Your task to perform on an android device: Open Google Chrome and click the shortcut for Amazon.com Image 0: 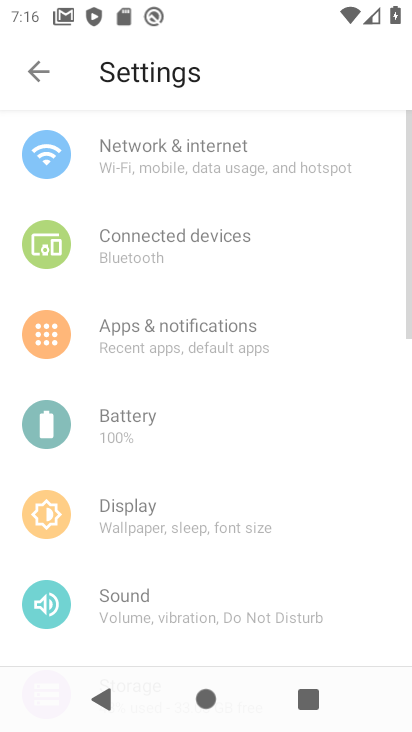
Step 0: press home button
Your task to perform on an android device: Open Google Chrome and click the shortcut for Amazon.com Image 1: 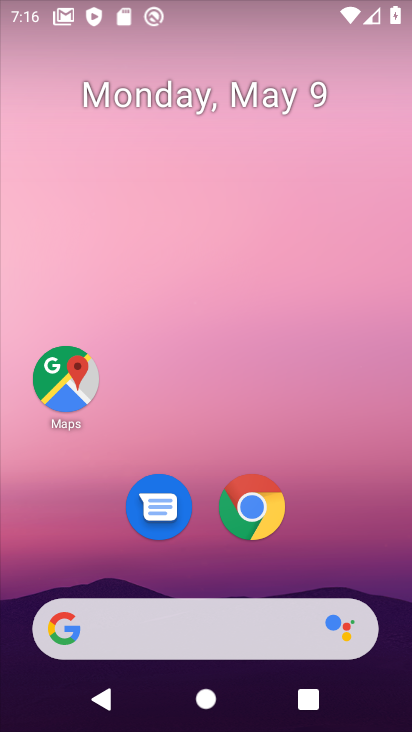
Step 1: drag from (291, 652) to (326, 188)
Your task to perform on an android device: Open Google Chrome and click the shortcut for Amazon.com Image 2: 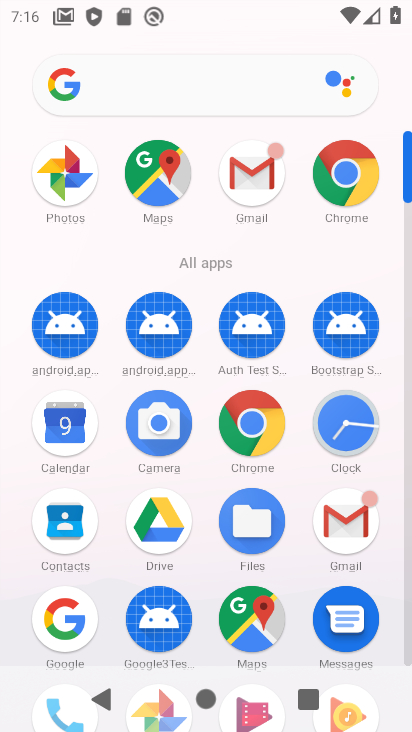
Step 2: click (347, 188)
Your task to perform on an android device: Open Google Chrome and click the shortcut for Amazon.com Image 3: 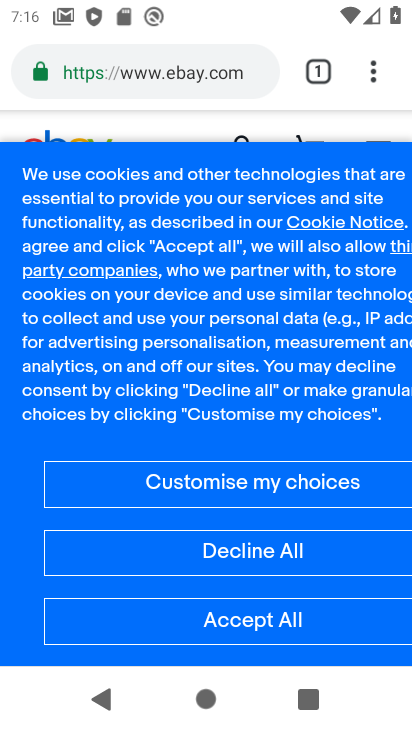
Step 3: click (322, 72)
Your task to perform on an android device: Open Google Chrome and click the shortcut for Amazon.com Image 4: 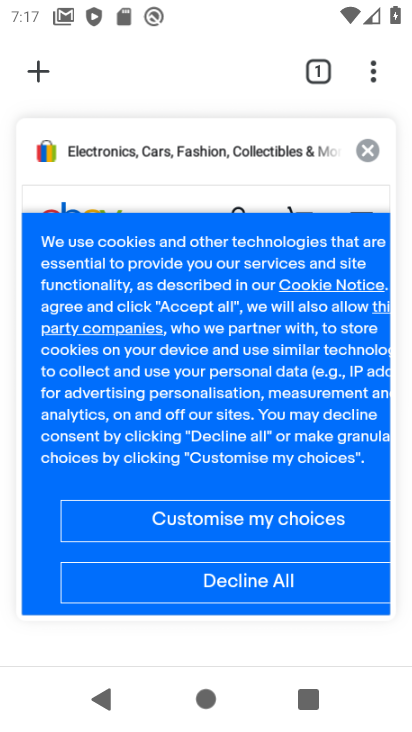
Step 4: click (370, 145)
Your task to perform on an android device: Open Google Chrome and click the shortcut for Amazon.com Image 5: 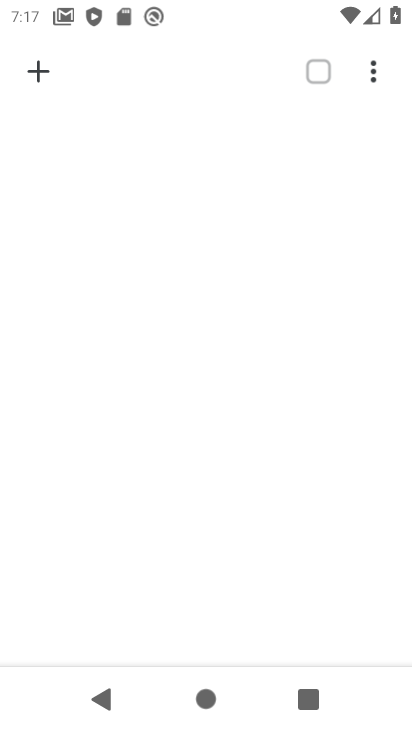
Step 5: click (43, 77)
Your task to perform on an android device: Open Google Chrome and click the shortcut for Amazon.com Image 6: 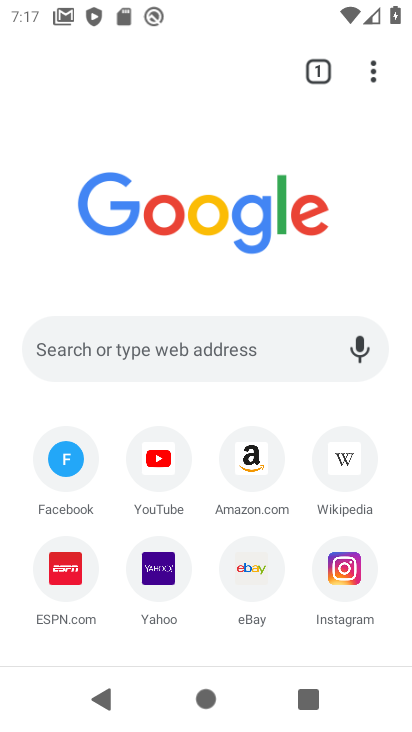
Step 6: click (250, 448)
Your task to perform on an android device: Open Google Chrome and click the shortcut for Amazon.com Image 7: 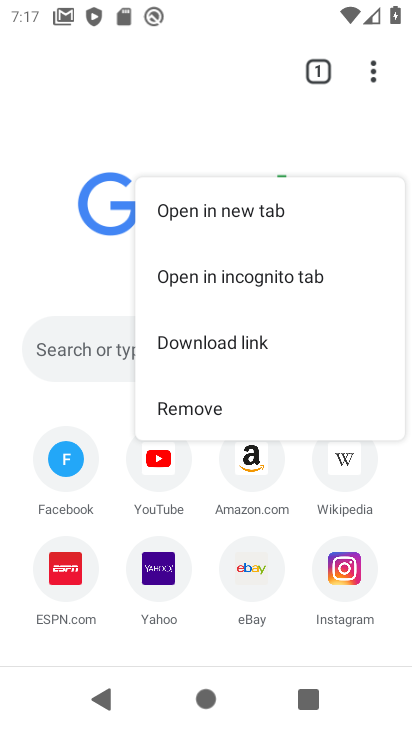
Step 7: click (258, 473)
Your task to perform on an android device: Open Google Chrome and click the shortcut for Amazon.com Image 8: 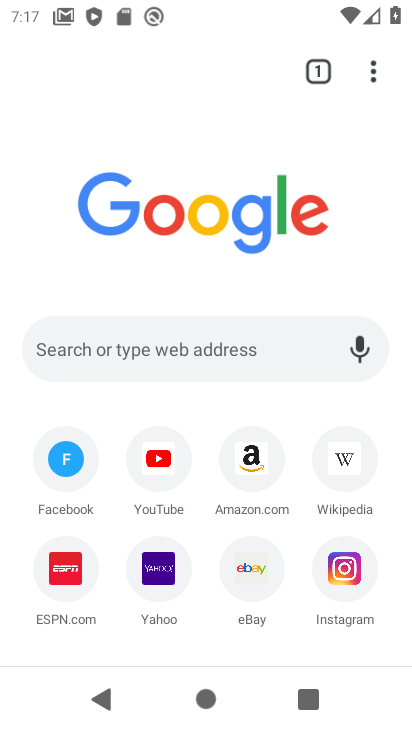
Step 8: click (247, 462)
Your task to perform on an android device: Open Google Chrome and click the shortcut for Amazon.com Image 9: 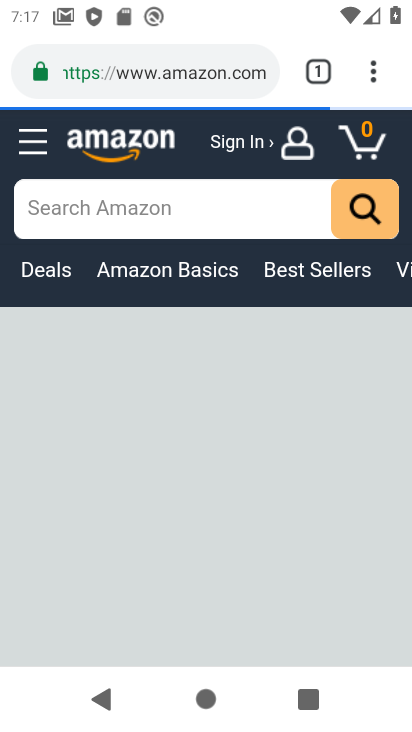
Step 9: click (367, 91)
Your task to perform on an android device: Open Google Chrome and click the shortcut for Amazon.com Image 10: 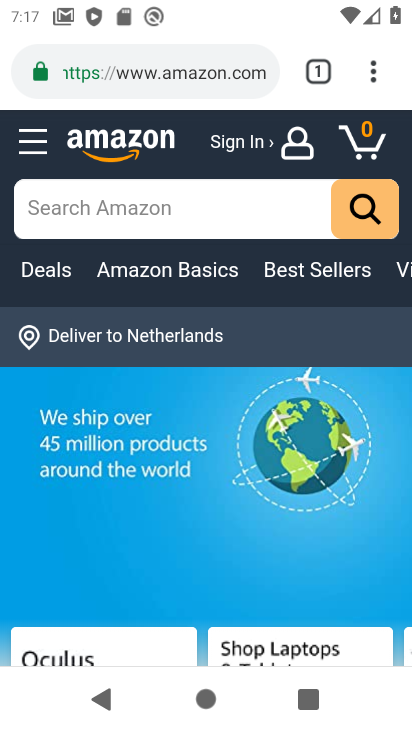
Step 10: click (362, 90)
Your task to perform on an android device: Open Google Chrome and click the shortcut for Amazon.com Image 11: 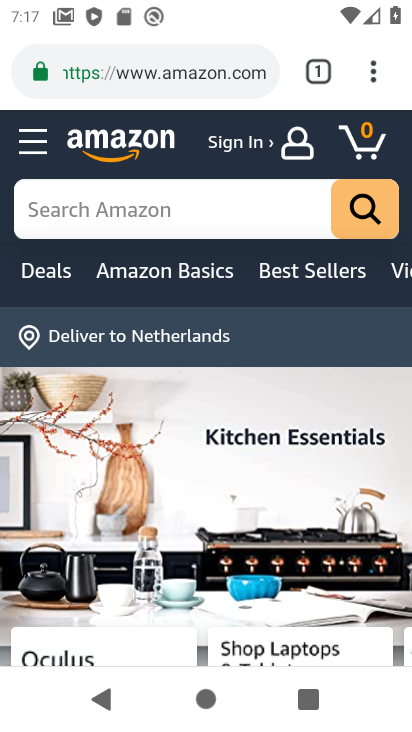
Step 11: click (365, 90)
Your task to perform on an android device: Open Google Chrome and click the shortcut for Amazon.com Image 12: 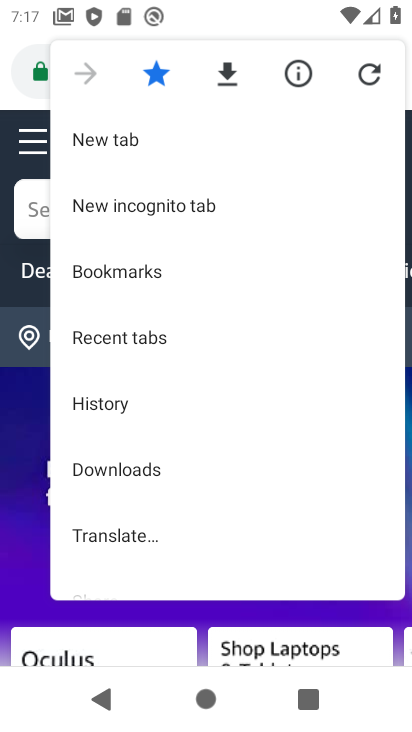
Step 12: drag from (184, 444) to (205, 215)
Your task to perform on an android device: Open Google Chrome and click the shortcut for Amazon.com Image 13: 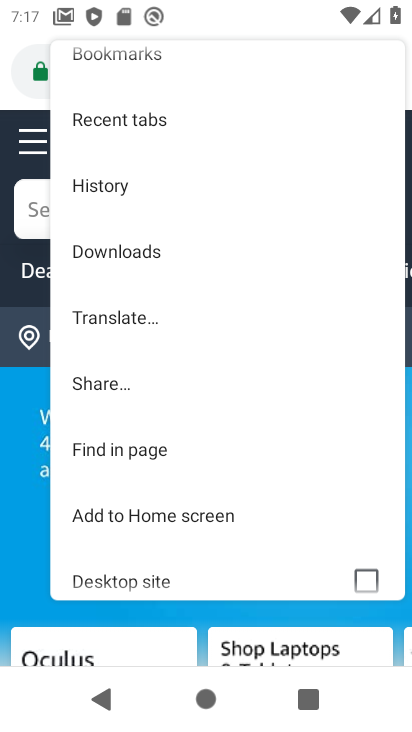
Step 13: click (180, 509)
Your task to perform on an android device: Open Google Chrome and click the shortcut for Amazon.com Image 14: 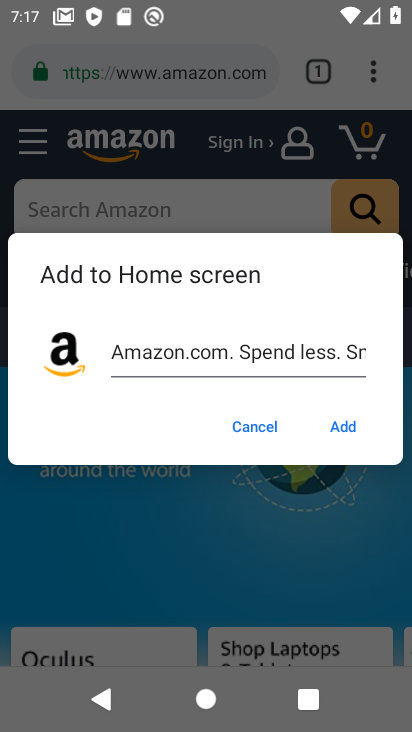
Step 14: click (336, 428)
Your task to perform on an android device: Open Google Chrome and click the shortcut for Amazon.com Image 15: 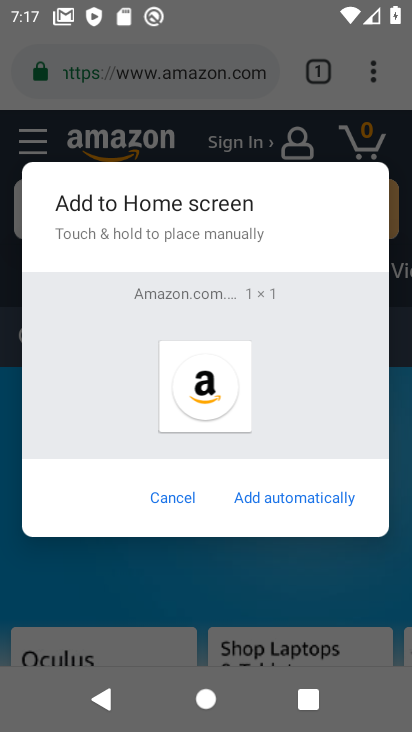
Step 15: click (300, 493)
Your task to perform on an android device: Open Google Chrome and click the shortcut for Amazon.com Image 16: 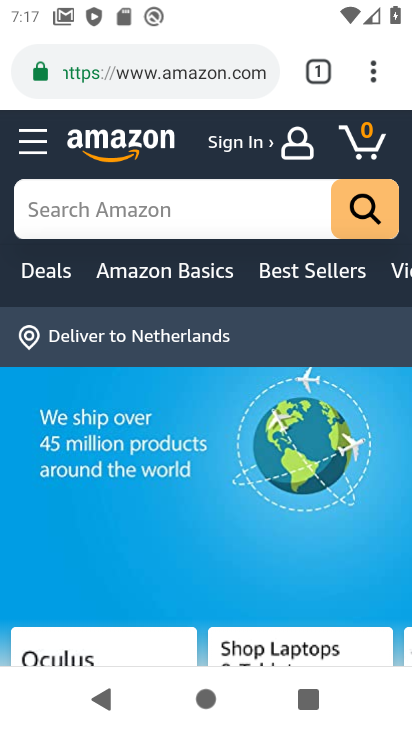
Step 16: task complete